Your task to perform on an android device: allow notifications from all sites in the chrome app Image 0: 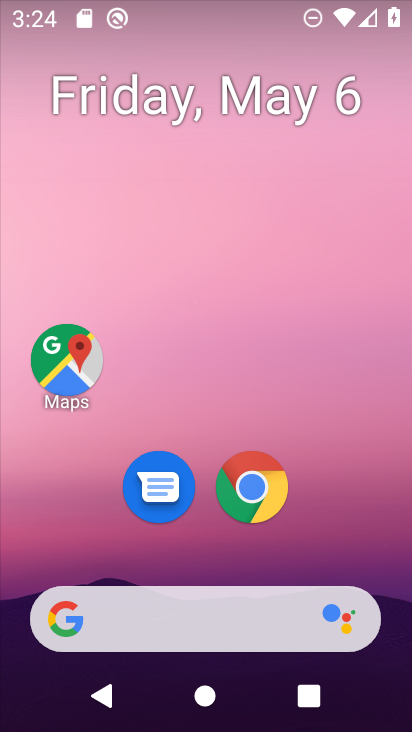
Step 0: click (263, 493)
Your task to perform on an android device: allow notifications from all sites in the chrome app Image 1: 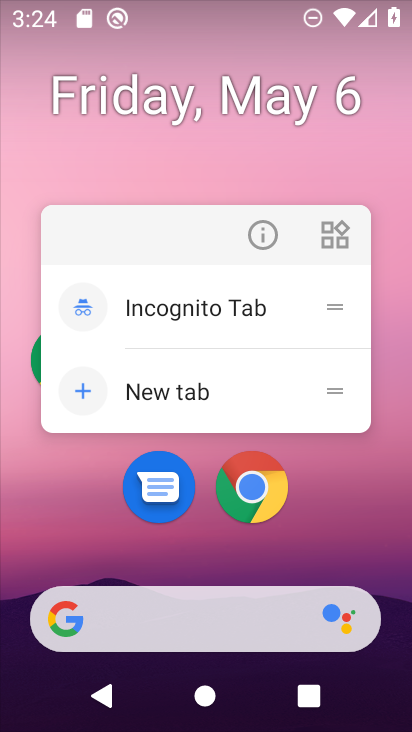
Step 1: click (262, 492)
Your task to perform on an android device: allow notifications from all sites in the chrome app Image 2: 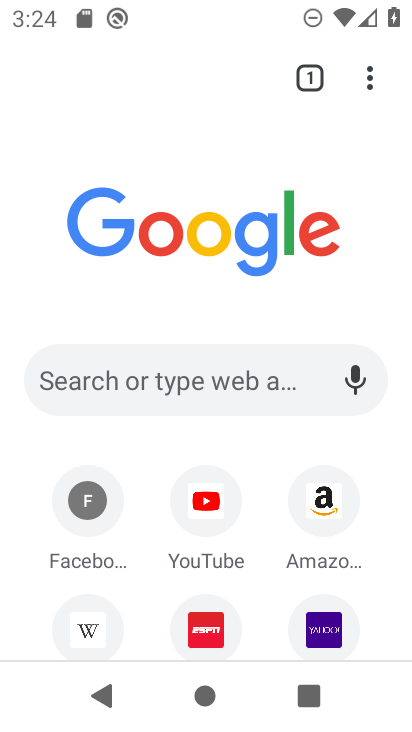
Step 2: click (363, 81)
Your task to perform on an android device: allow notifications from all sites in the chrome app Image 3: 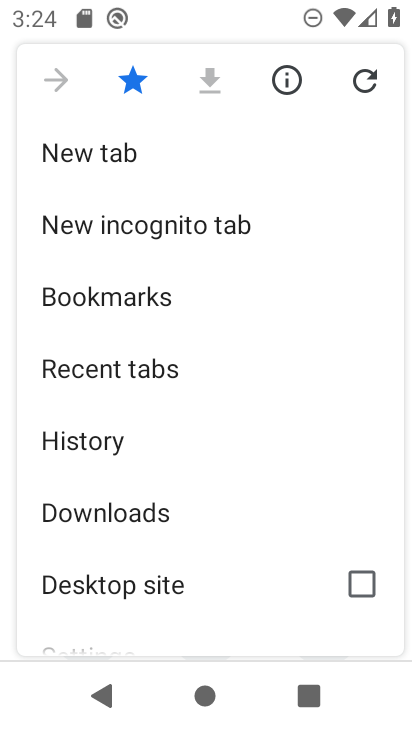
Step 3: drag from (182, 600) to (207, 371)
Your task to perform on an android device: allow notifications from all sites in the chrome app Image 4: 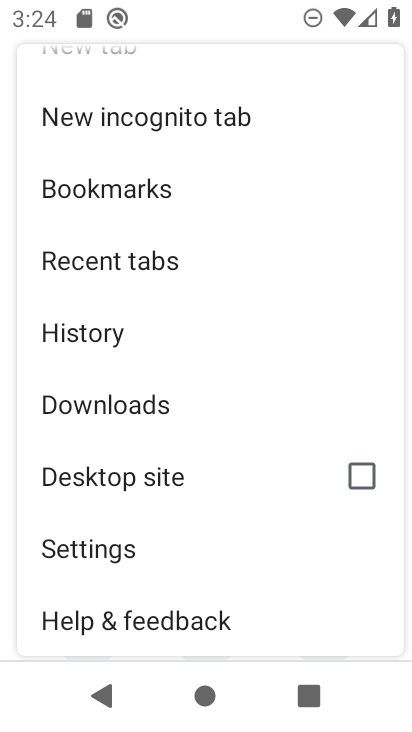
Step 4: click (165, 539)
Your task to perform on an android device: allow notifications from all sites in the chrome app Image 5: 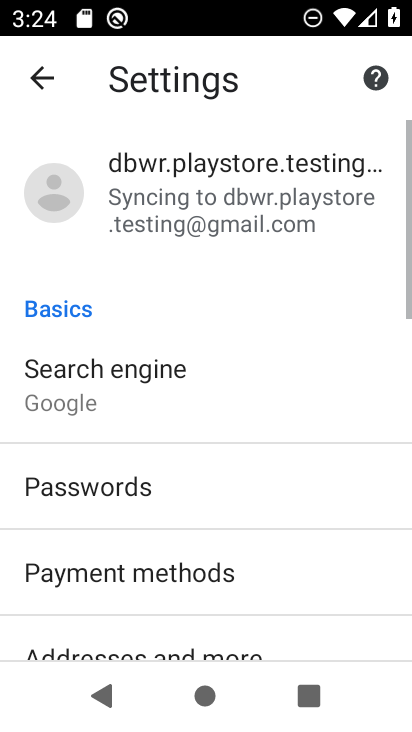
Step 5: drag from (151, 605) to (162, 408)
Your task to perform on an android device: allow notifications from all sites in the chrome app Image 6: 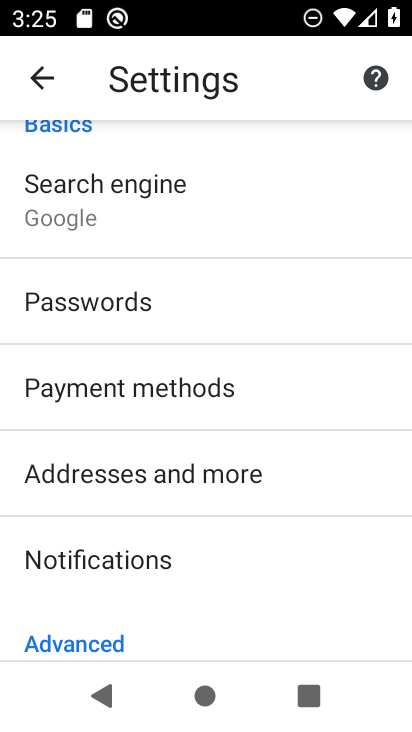
Step 6: drag from (166, 614) to (158, 546)
Your task to perform on an android device: allow notifications from all sites in the chrome app Image 7: 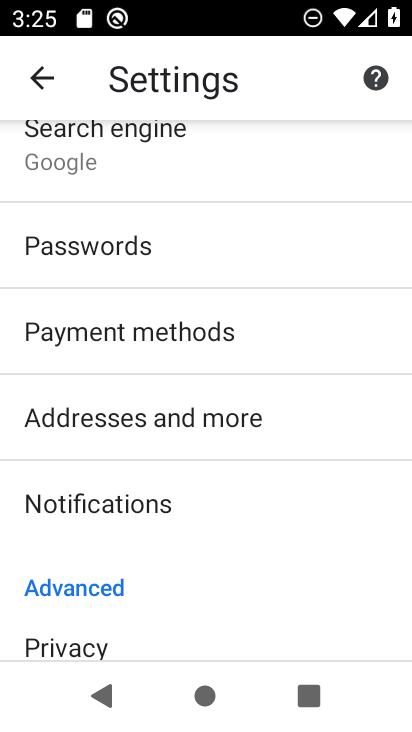
Step 7: click (146, 498)
Your task to perform on an android device: allow notifications from all sites in the chrome app Image 8: 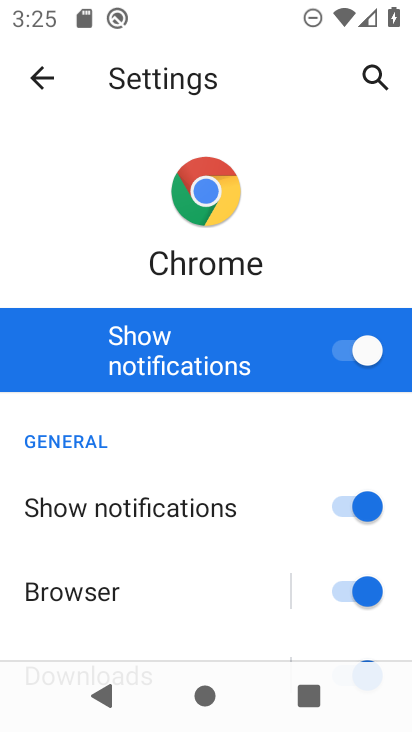
Step 8: task complete